Your task to perform on an android device: open chrome privacy settings Image 0: 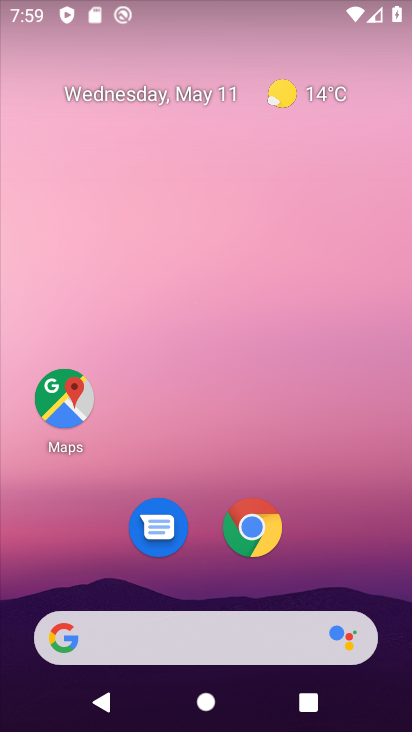
Step 0: click (250, 523)
Your task to perform on an android device: open chrome privacy settings Image 1: 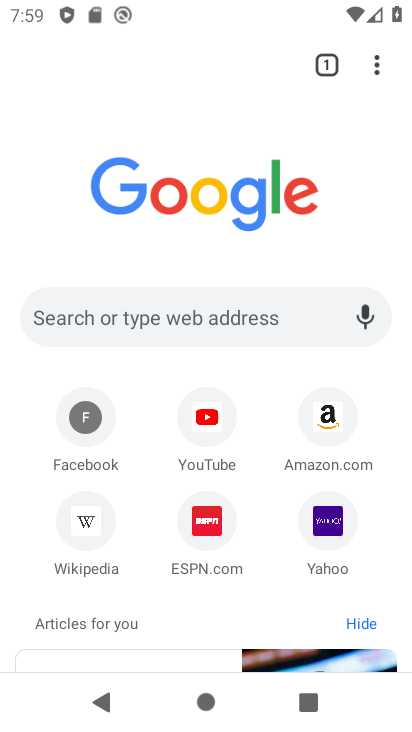
Step 1: click (381, 64)
Your task to perform on an android device: open chrome privacy settings Image 2: 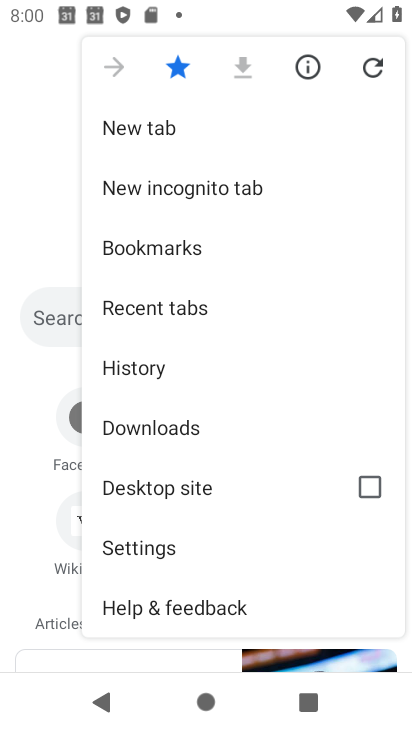
Step 2: drag from (223, 557) to (219, 192)
Your task to perform on an android device: open chrome privacy settings Image 3: 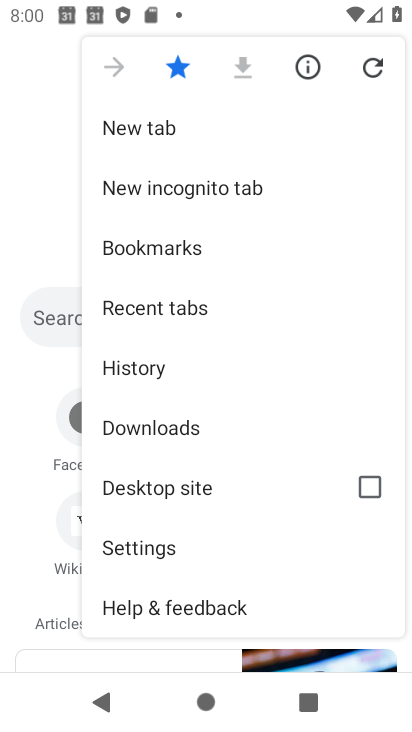
Step 3: click (154, 557)
Your task to perform on an android device: open chrome privacy settings Image 4: 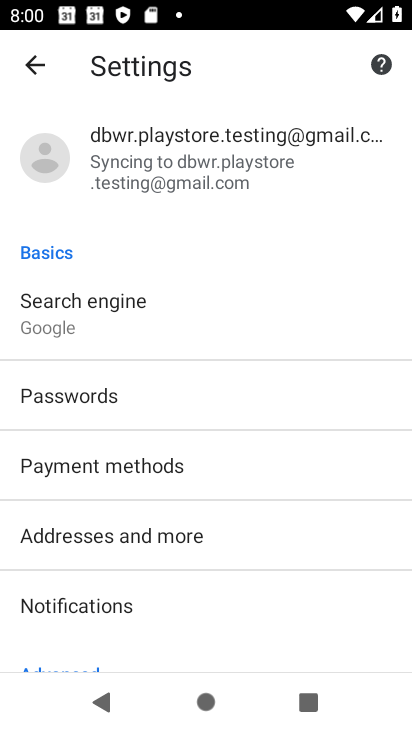
Step 4: drag from (124, 596) to (224, 5)
Your task to perform on an android device: open chrome privacy settings Image 5: 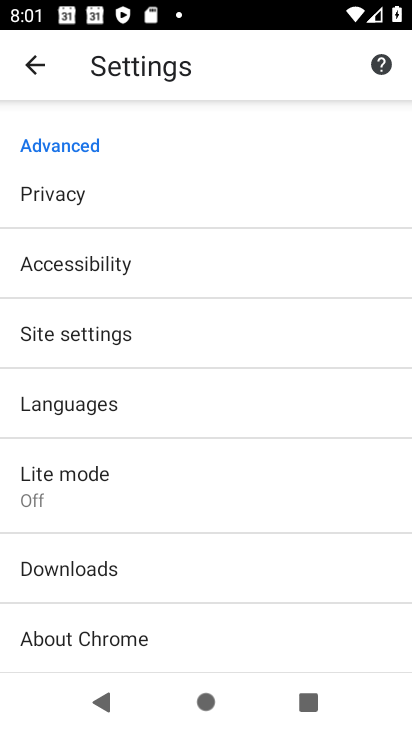
Step 5: click (159, 198)
Your task to perform on an android device: open chrome privacy settings Image 6: 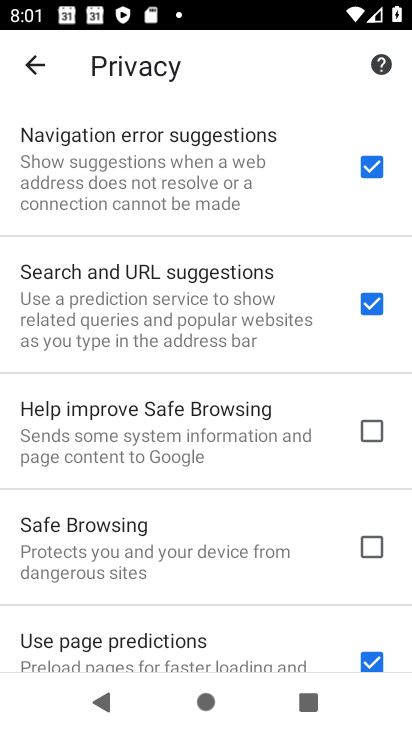
Step 6: click (159, 198)
Your task to perform on an android device: open chrome privacy settings Image 7: 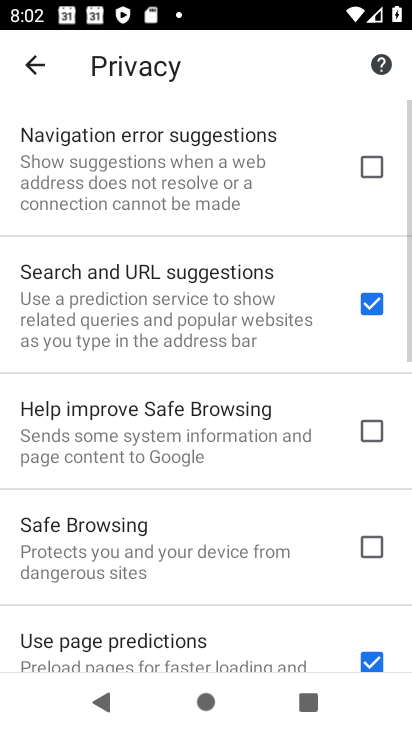
Step 7: task complete